Your task to perform on an android device: Clear all items from cart on newegg. Search for macbook pro on newegg, select the first entry, and add it to the cart. Image 0: 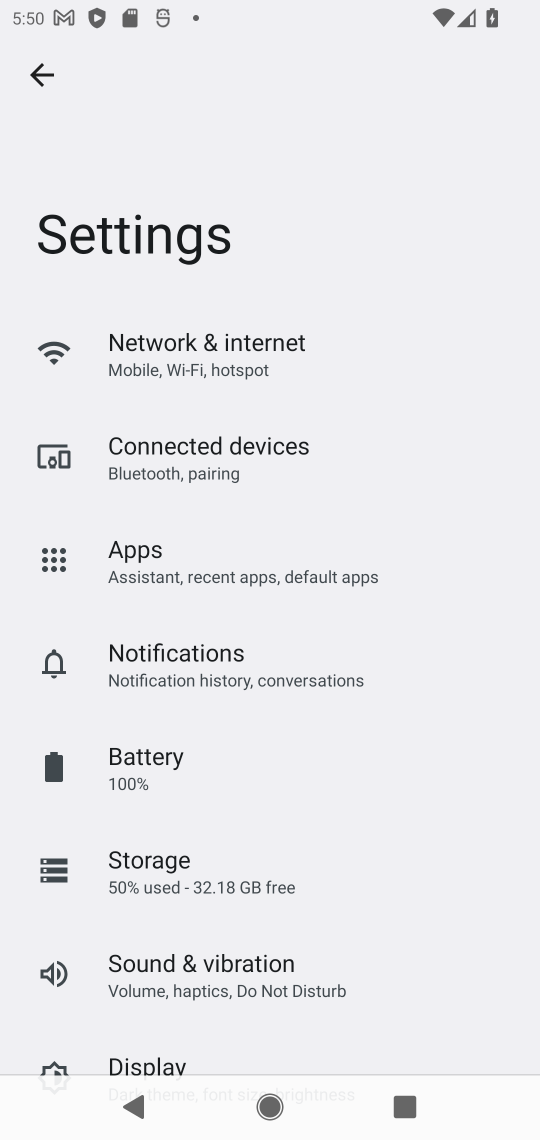
Step 0: press home button
Your task to perform on an android device: Clear all items from cart on newegg. Search for macbook pro on newegg, select the first entry, and add it to the cart. Image 1: 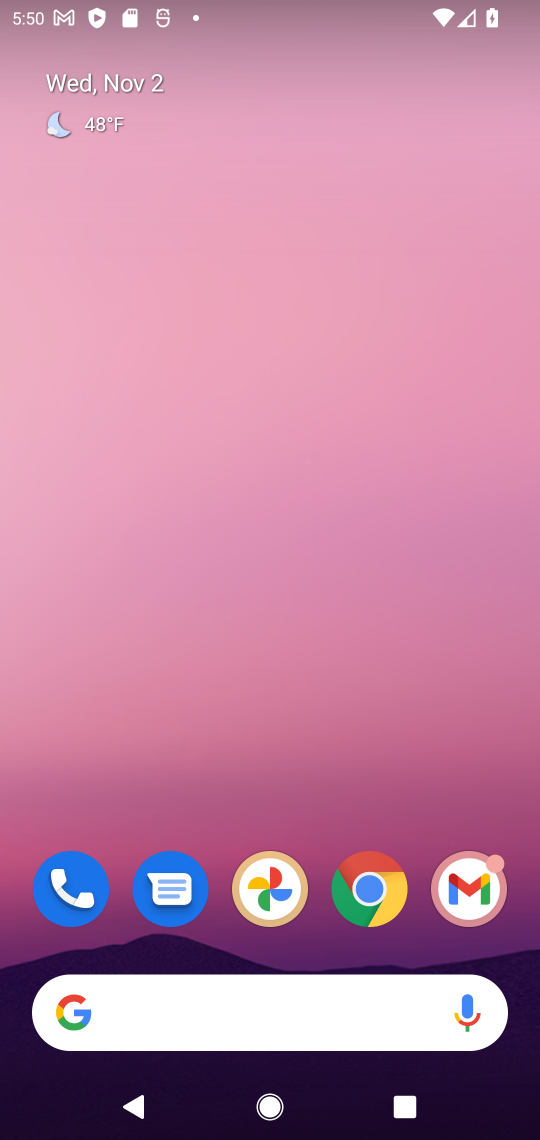
Step 1: click (371, 898)
Your task to perform on an android device: Clear all items from cart on newegg. Search for macbook pro on newegg, select the first entry, and add it to the cart. Image 2: 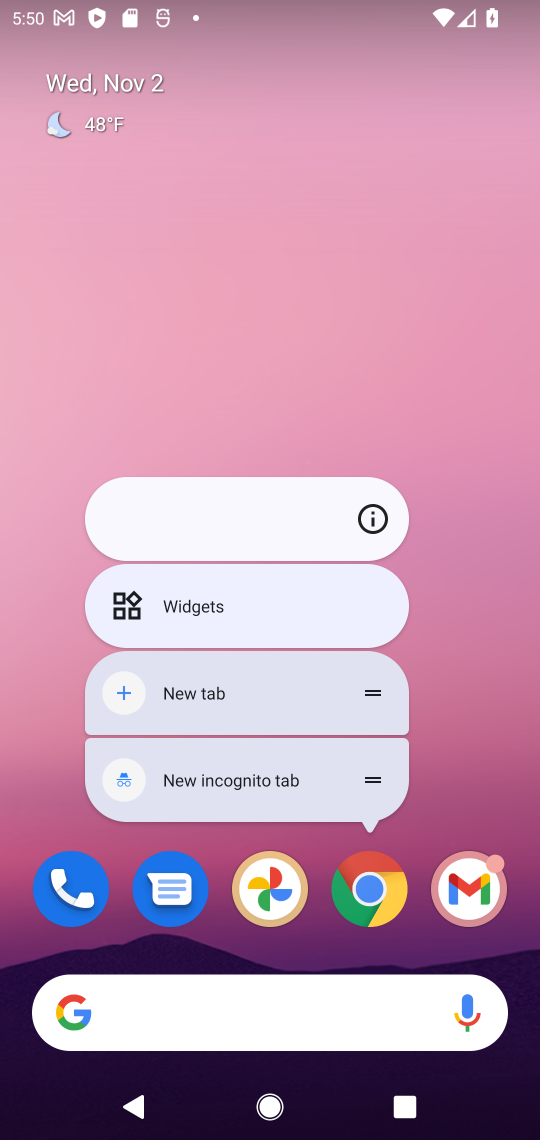
Step 2: click (372, 883)
Your task to perform on an android device: Clear all items from cart on newegg. Search for macbook pro on newegg, select the first entry, and add it to the cart. Image 3: 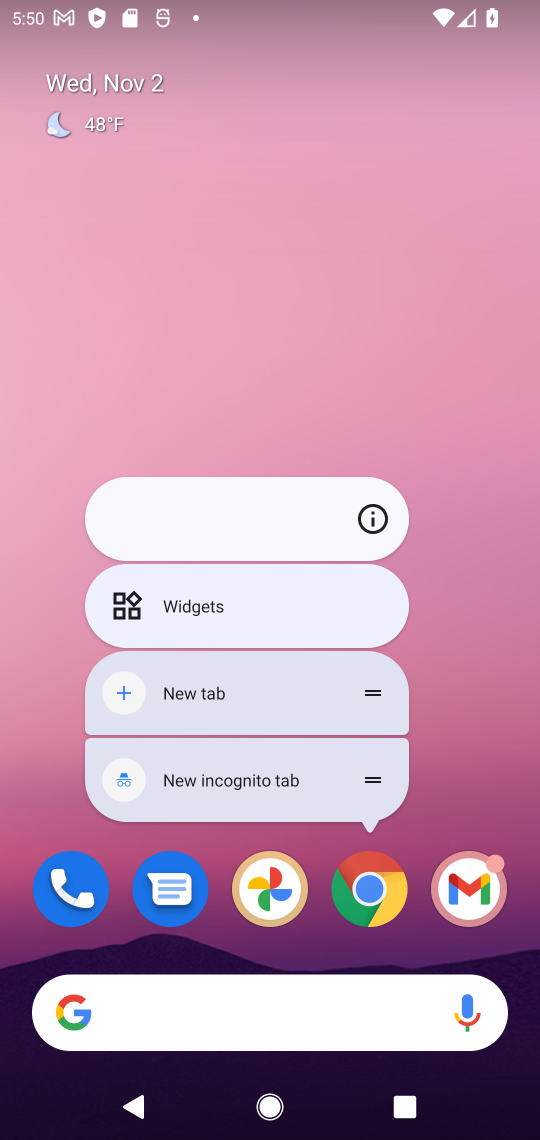
Step 3: click (349, 884)
Your task to perform on an android device: Clear all items from cart on newegg. Search for macbook pro on newegg, select the first entry, and add it to the cart. Image 4: 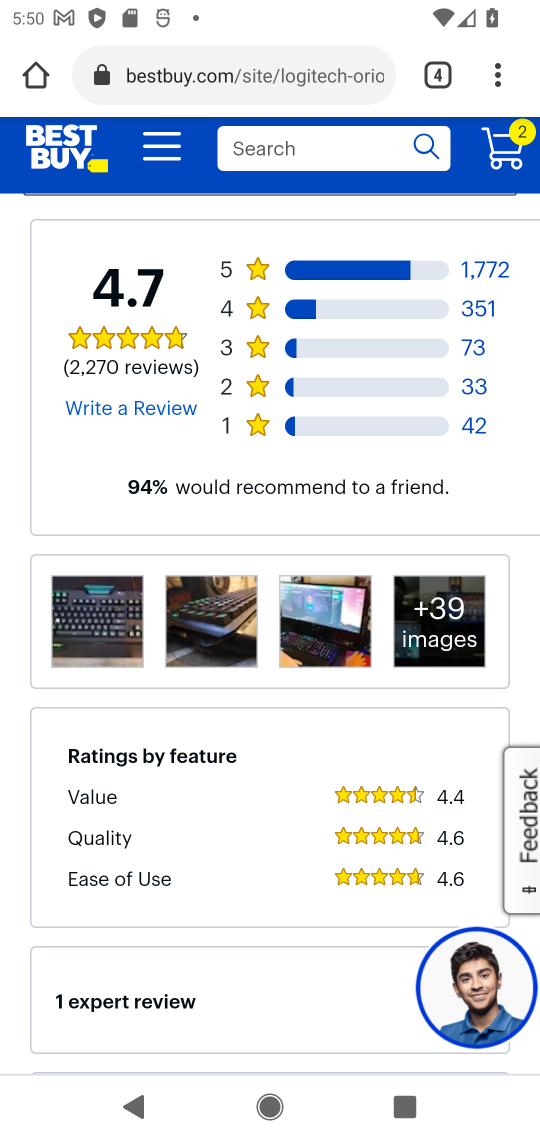
Step 4: click (300, 69)
Your task to perform on an android device: Clear all items from cart on newegg. Search for macbook pro on newegg, select the first entry, and add it to the cart. Image 5: 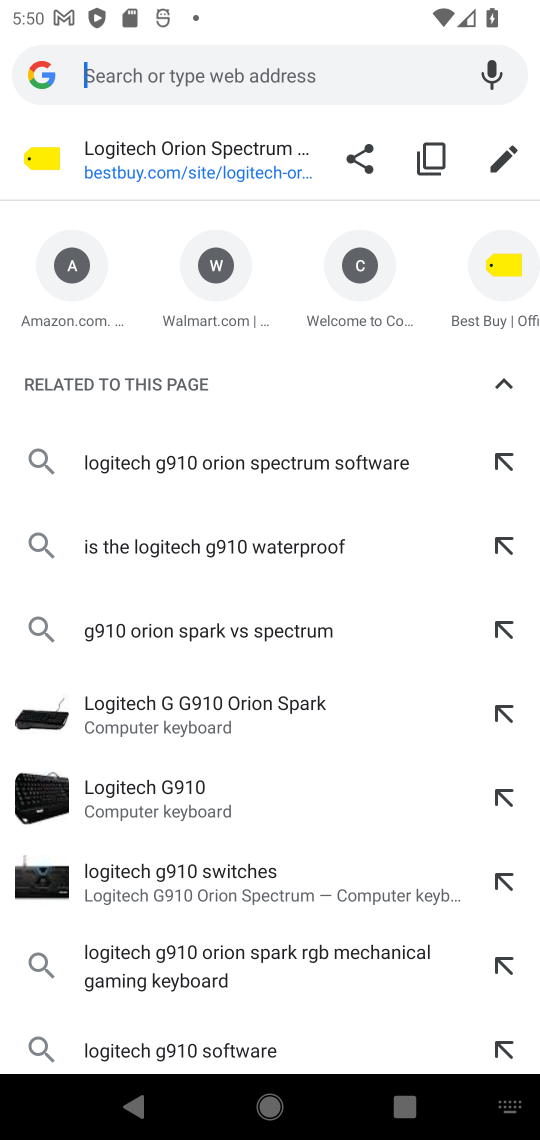
Step 5: type "newegg"
Your task to perform on an android device: Clear all items from cart on newegg. Search for macbook pro on newegg, select the first entry, and add it to the cart. Image 6: 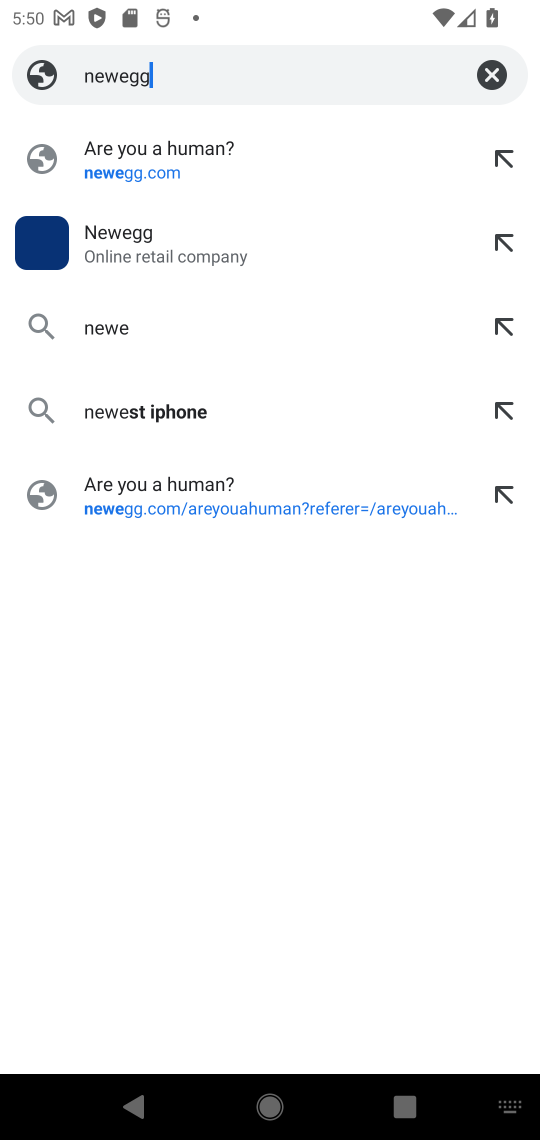
Step 6: press enter
Your task to perform on an android device: Clear all items from cart on newegg. Search for macbook pro on newegg, select the first entry, and add it to the cart. Image 7: 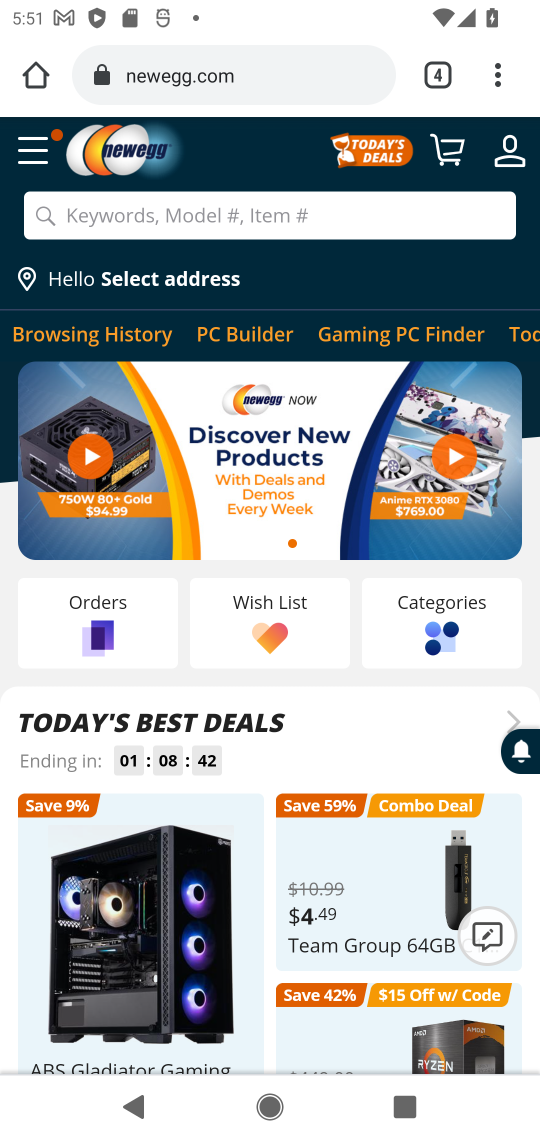
Step 7: click (283, 207)
Your task to perform on an android device: Clear all items from cart on newegg. Search for macbook pro on newegg, select the first entry, and add it to the cart. Image 8: 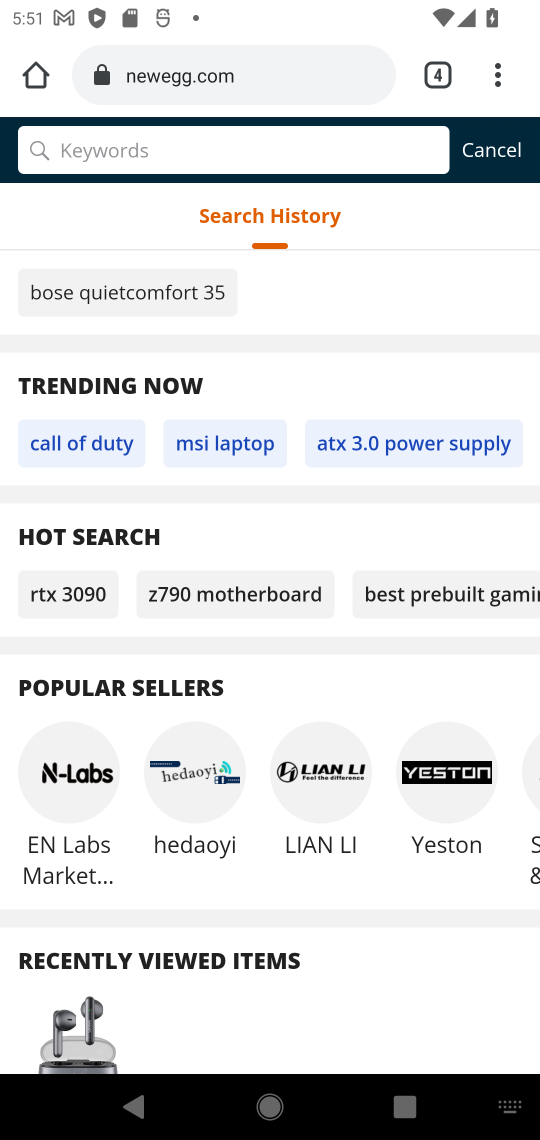
Step 8: type "macbook pro "
Your task to perform on an android device: Clear all items from cart on newegg. Search for macbook pro on newegg, select the first entry, and add it to the cart. Image 9: 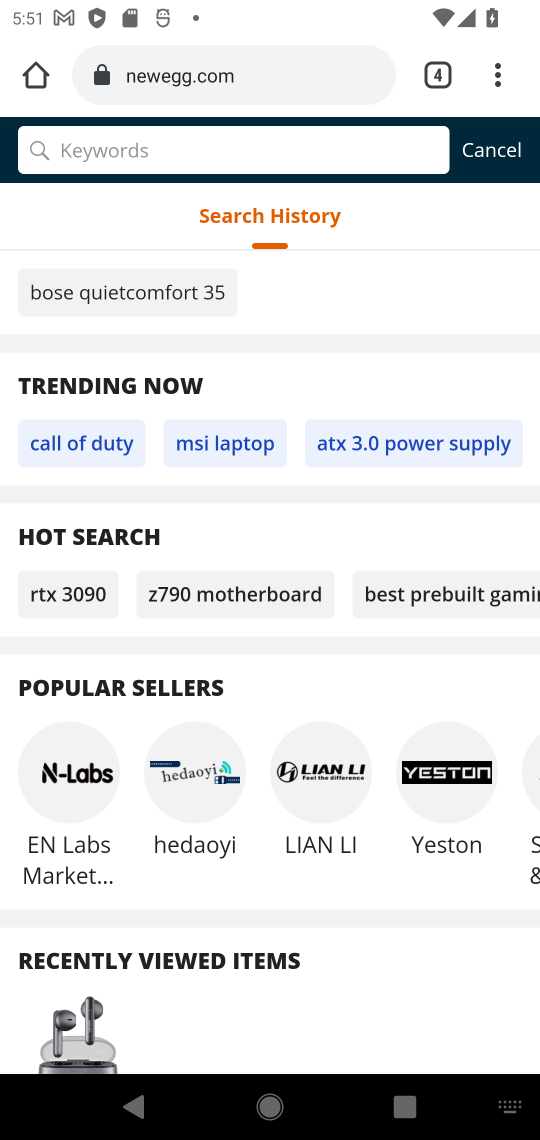
Step 9: press enter
Your task to perform on an android device: Clear all items from cart on newegg. Search for macbook pro on newegg, select the first entry, and add it to the cart. Image 10: 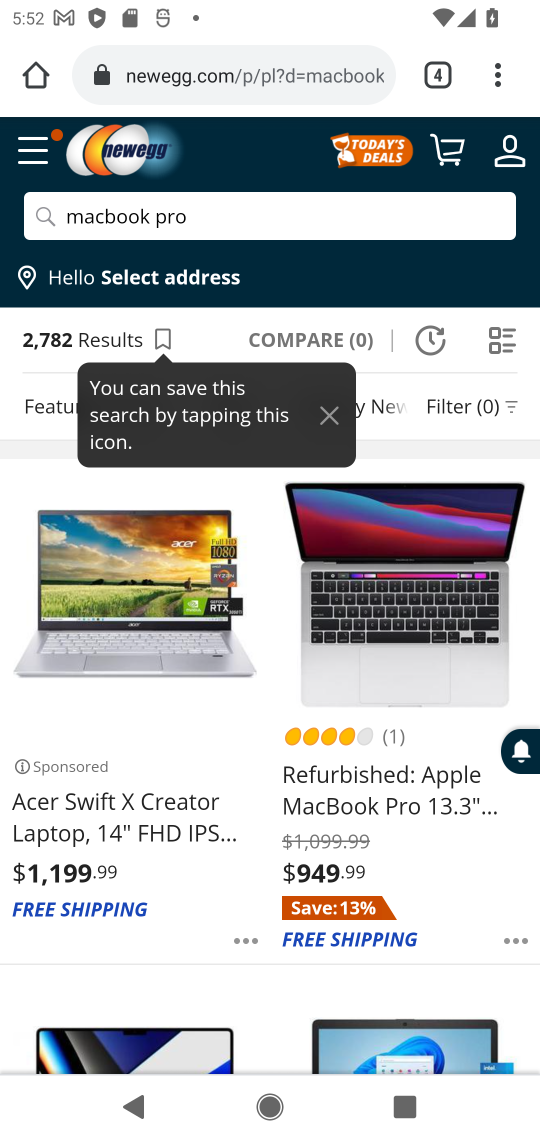
Step 10: click (403, 795)
Your task to perform on an android device: Clear all items from cart on newegg. Search for macbook pro on newegg, select the first entry, and add it to the cart. Image 11: 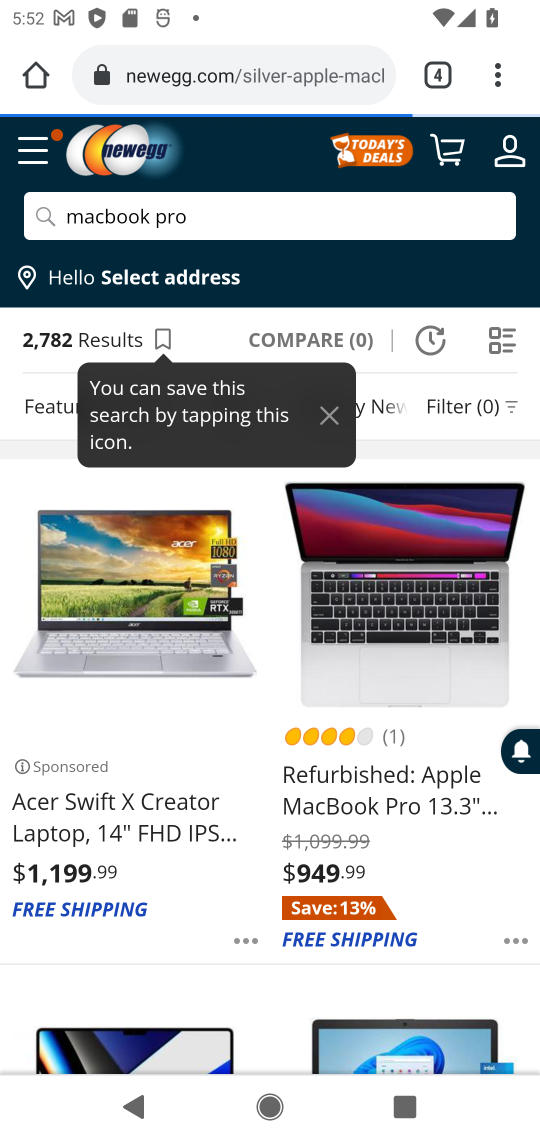
Step 11: click (402, 717)
Your task to perform on an android device: Clear all items from cart on newegg. Search for macbook pro on newegg, select the first entry, and add it to the cart. Image 12: 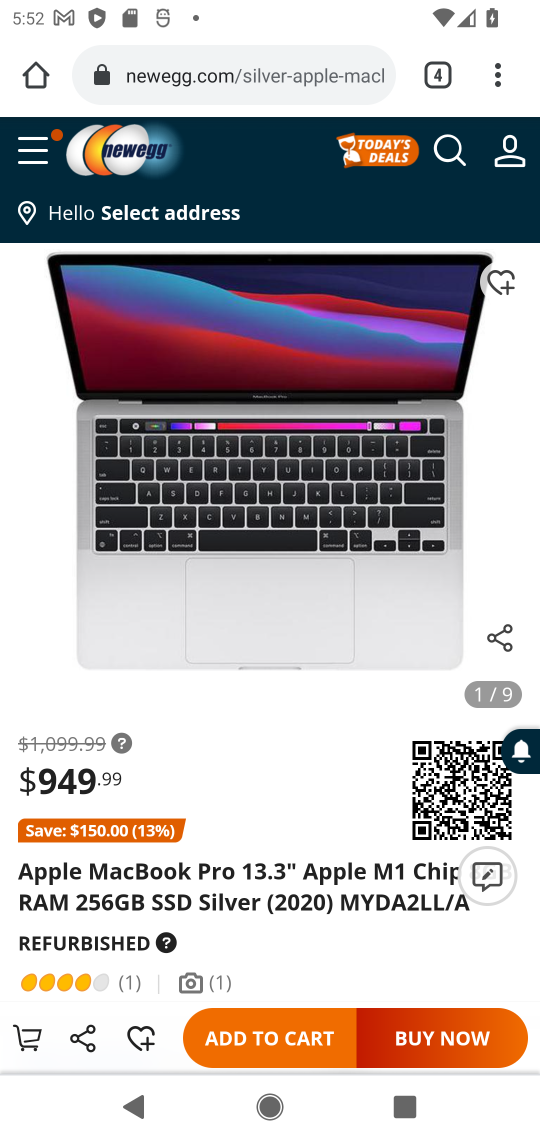
Step 12: click (265, 1037)
Your task to perform on an android device: Clear all items from cart on newegg. Search for macbook pro on newegg, select the first entry, and add it to the cart. Image 13: 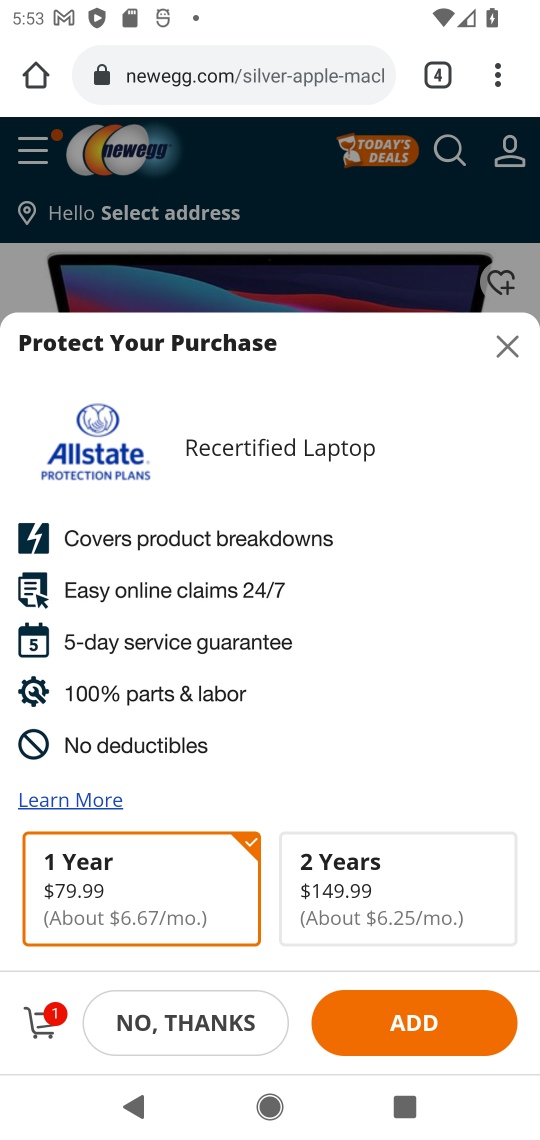
Step 13: click (160, 1030)
Your task to perform on an android device: Clear all items from cart on newegg. Search for macbook pro on newegg, select the first entry, and add it to the cart. Image 14: 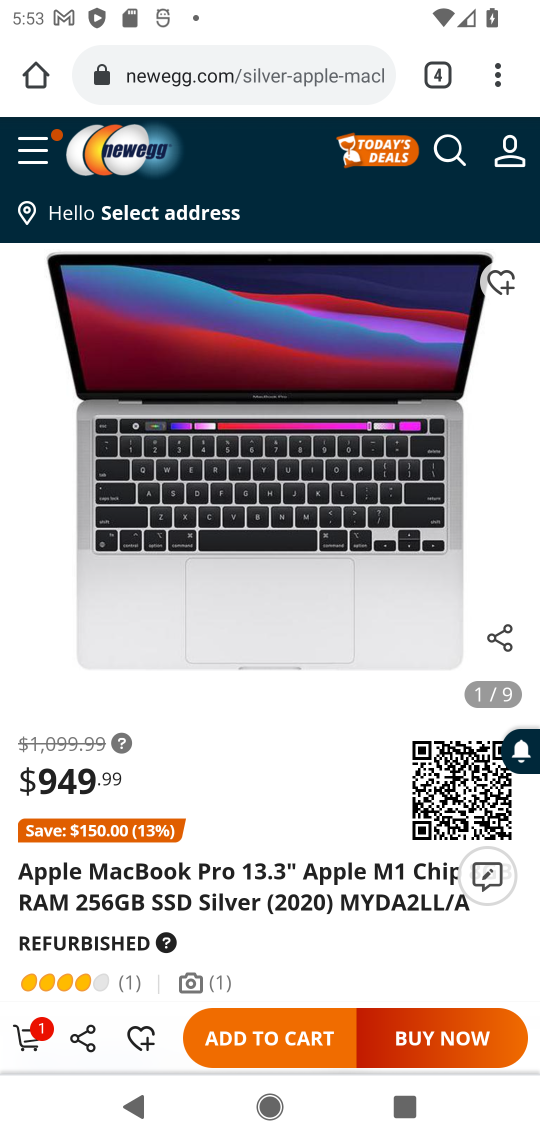
Step 14: task complete